Your task to perform on an android device: What's the weather going to be tomorrow? Image 0: 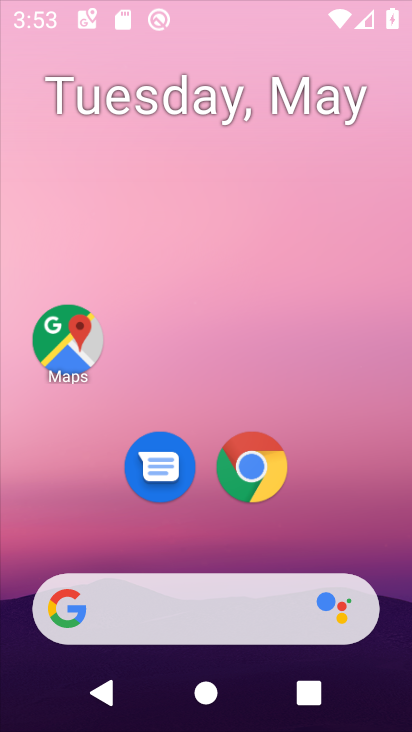
Step 0: click (246, 12)
Your task to perform on an android device: What's the weather going to be tomorrow? Image 1: 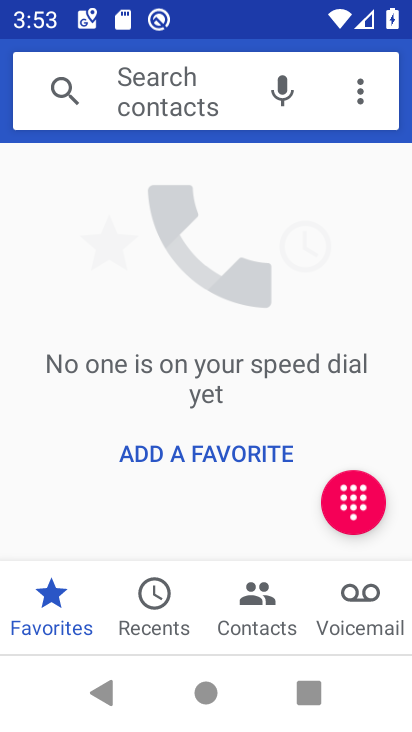
Step 1: press home button
Your task to perform on an android device: What's the weather going to be tomorrow? Image 2: 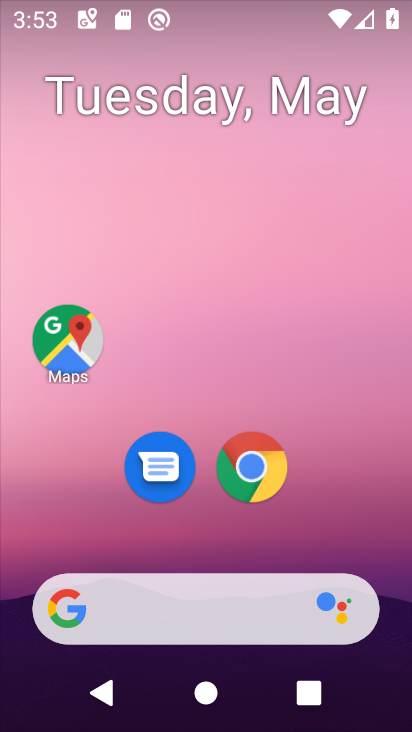
Step 2: drag from (240, 555) to (187, 22)
Your task to perform on an android device: What's the weather going to be tomorrow? Image 3: 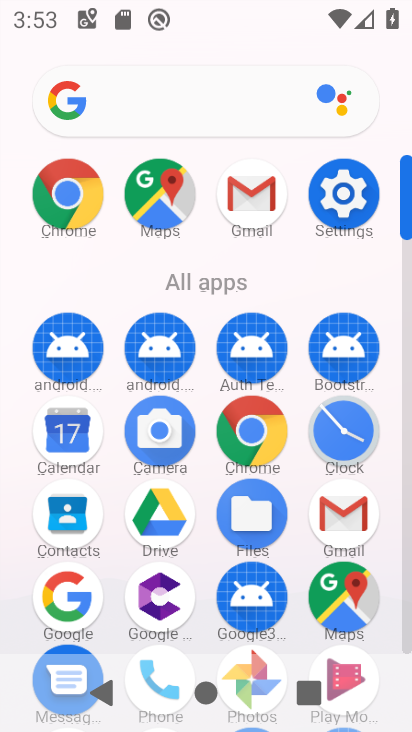
Step 3: click (69, 607)
Your task to perform on an android device: What's the weather going to be tomorrow? Image 4: 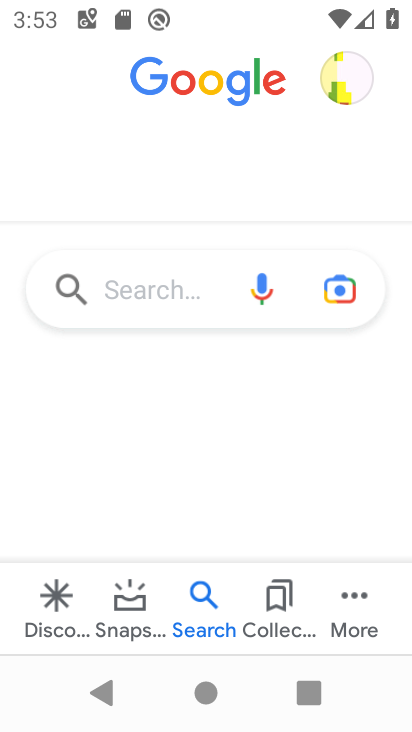
Step 4: click (159, 286)
Your task to perform on an android device: What's the weather going to be tomorrow? Image 5: 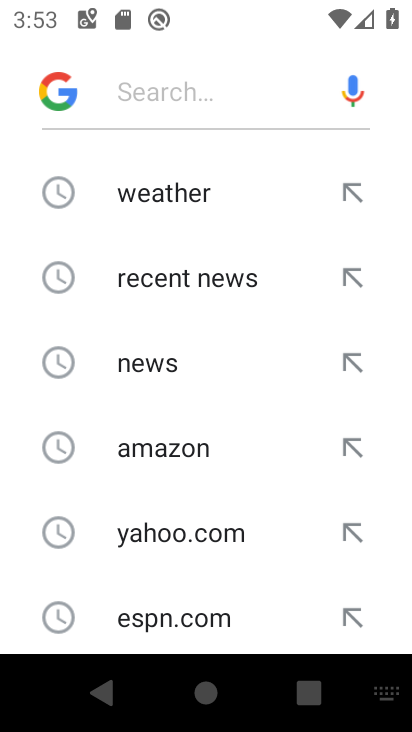
Step 5: click (151, 190)
Your task to perform on an android device: What's the weather going to be tomorrow? Image 6: 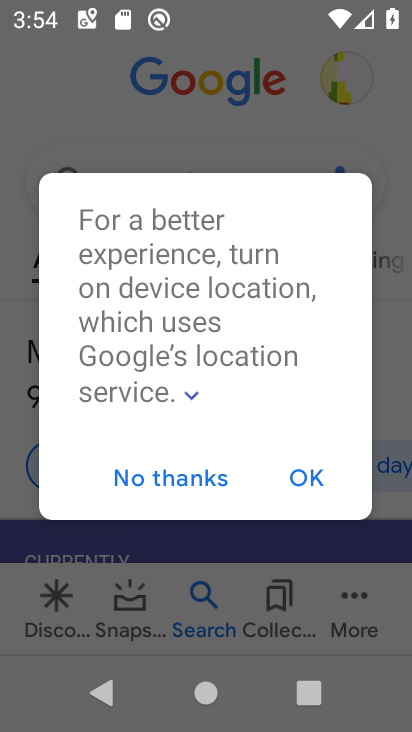
Step 6: click (304, 474)
Your task to perform on an android device: What's the weather going to be tomorrow? Image 7: 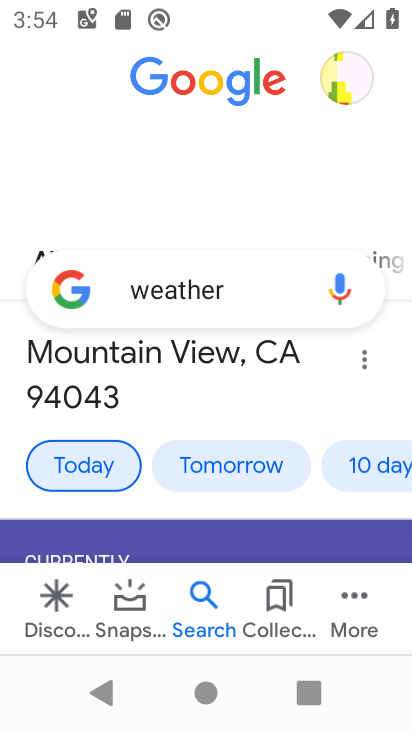
Step 7: click (251, 473)
Your task to perform on an android device: What's the weather going to be tomorrow? Image 8: 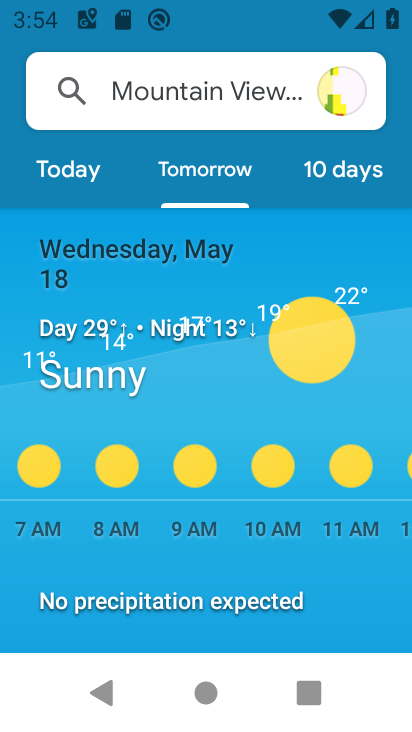
Step 8: task complete